Your task to perform on an android device: Open the stopwatch Image 0: 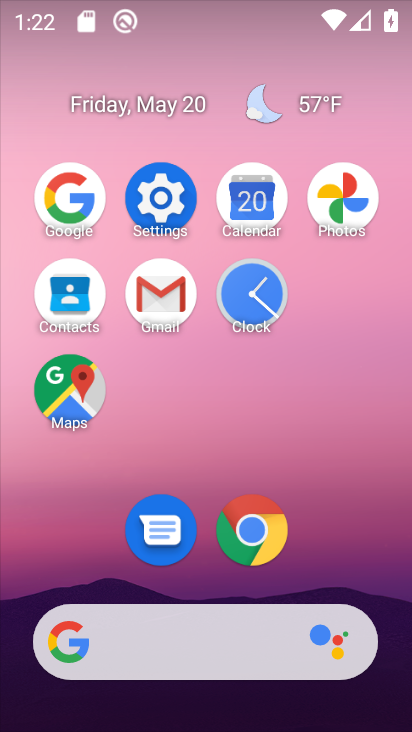
Step 0: click (265, 292)
Your task to perform on an android device: Open the stopwatch Image 1: 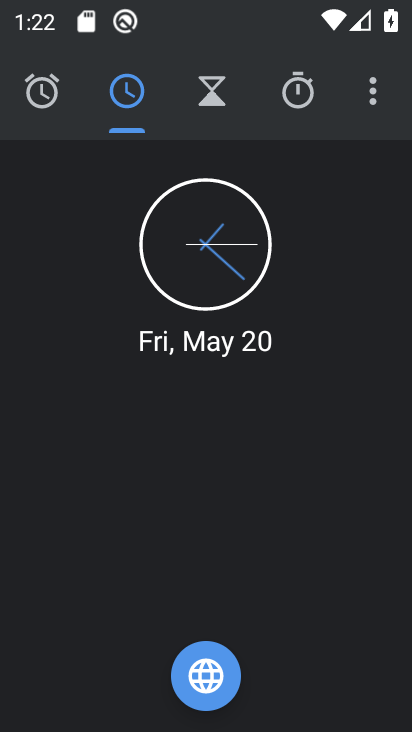
Step 1: click (293, 100)
Your task to perform on an android device: Open the stopwatch Image 2: 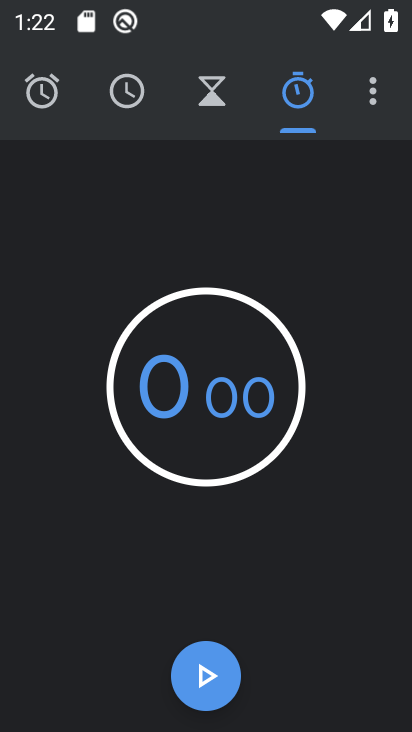
Step 2: task complete